Your task to perform on an android device: Open settings on Google Maps Image 0: 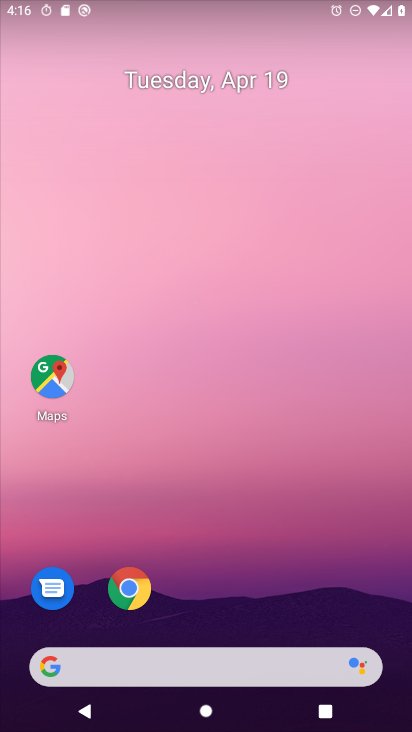
Step 0: click (51, 370)
Your task to perform on an android device: Open settings on Google Maps Image 1: 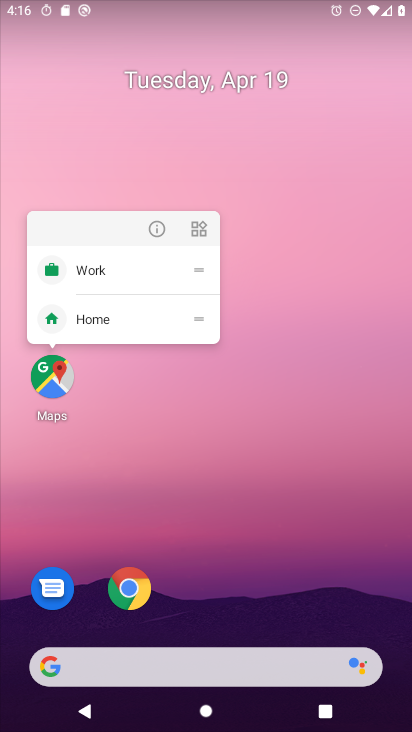
Step 1: click (51, 384)
Your task to perform on an android device: Open settings on Google Maps Image 2: 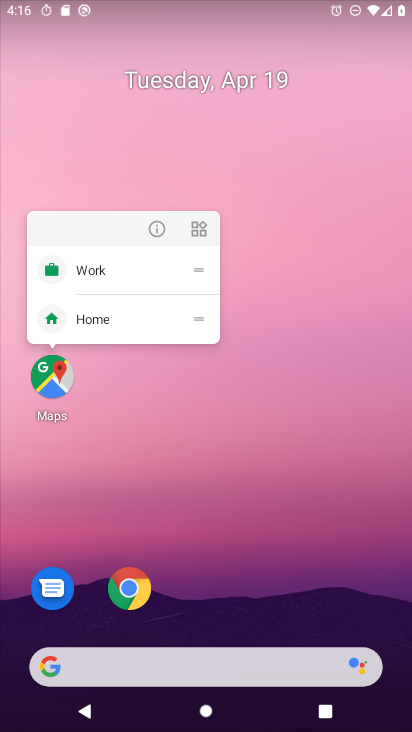
Step 2: click (55, 379)
Your task to perform on an android device: Open settings on Google Maps Image 3: 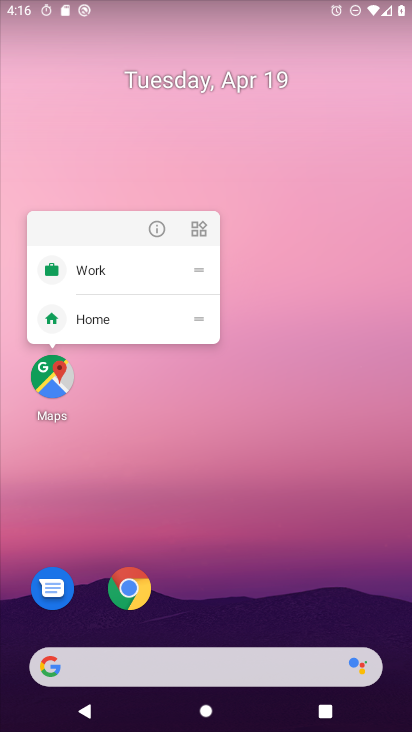
Step 3: click (54, 379)
Your task to perform on an android device: Open settings on Google Maps Image 4: 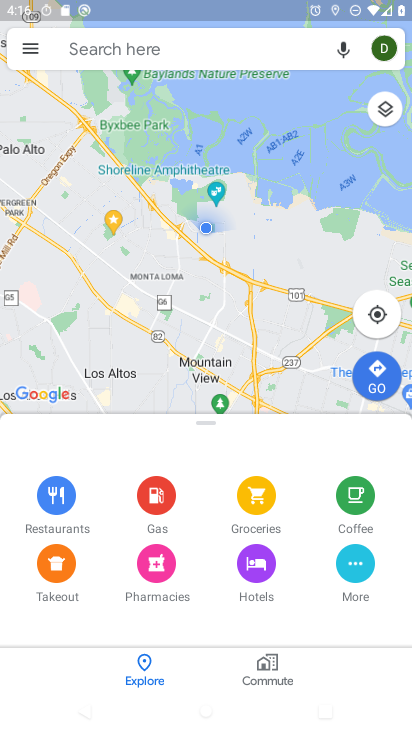
Step 4: click (26, 40)
Your task to perform on an android device: Open settings on Google Maps Image 5: 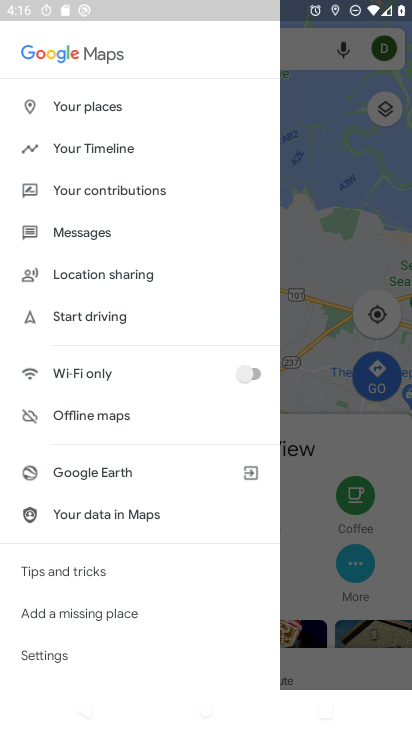
Step 5: click (63, 655)
Your task to perform on an android device: Open settings on Google Maps Image 6: 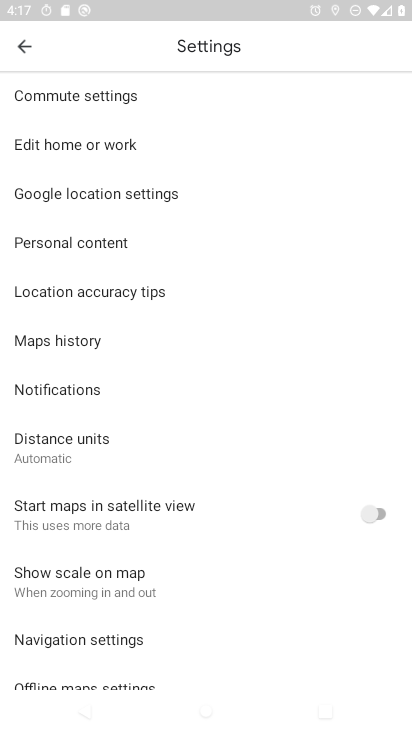
Step 6: task complete